Your task to perform on an android device: turn on javascript in the chrome app Image 0: 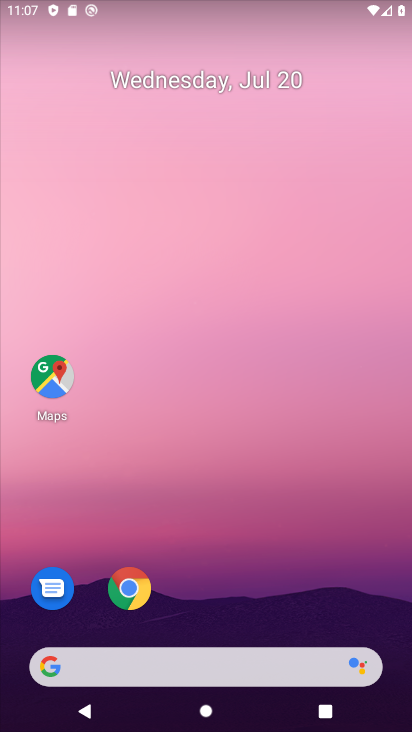
Step 0: press home button
Your task to perform on an android device: turn on javascript in the chrome app Image 1: 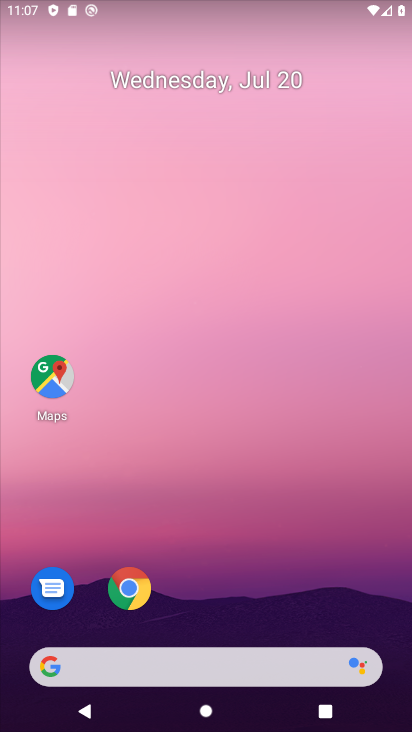
Step 1: click (125, 590)
Your task to perform on an android device: turn on javascript in the chrome app Image 2: 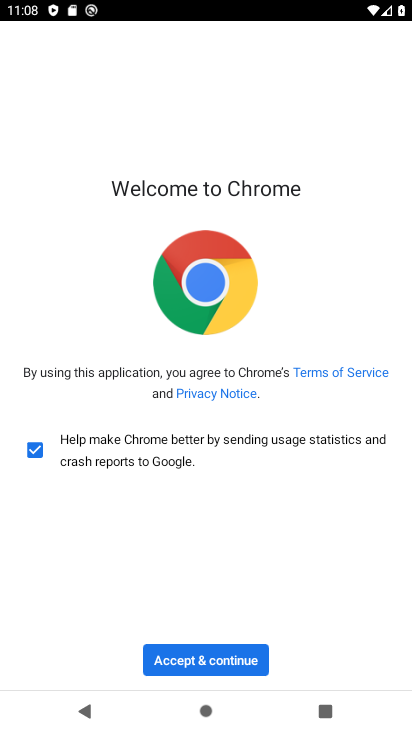
Step 2: click (195, 663)
Your task to perform on an android device: turn on javascript in the chrome app Image 3: 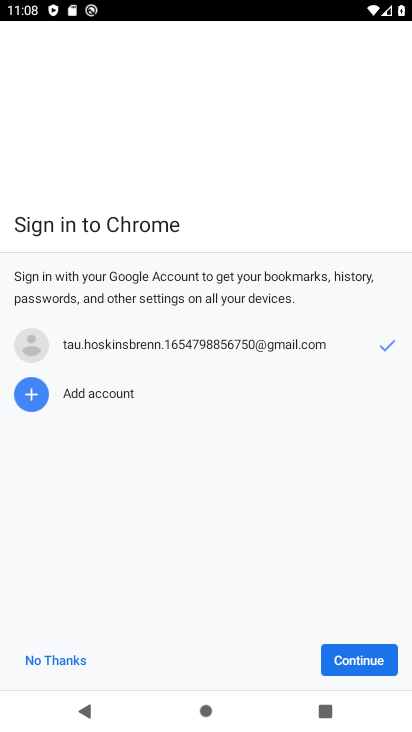
Step 3: click (390, 672)
Your task to perform on an android device: turn on javascript in the chrome app Image 4: 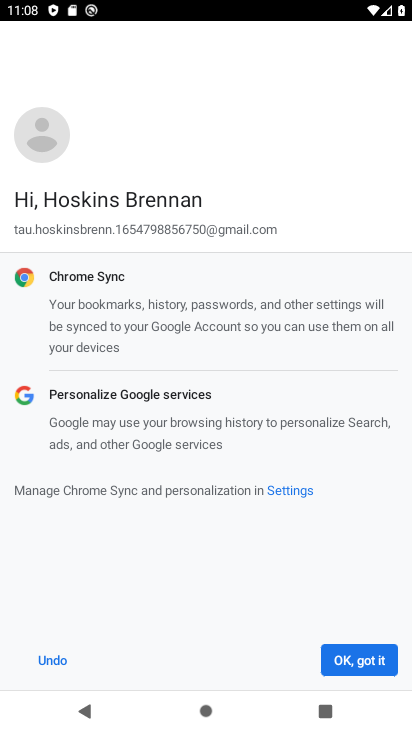
Step 4: click (390, 672)
Your task to perform on an android device: turn on javascript in the chrome app Image 5: 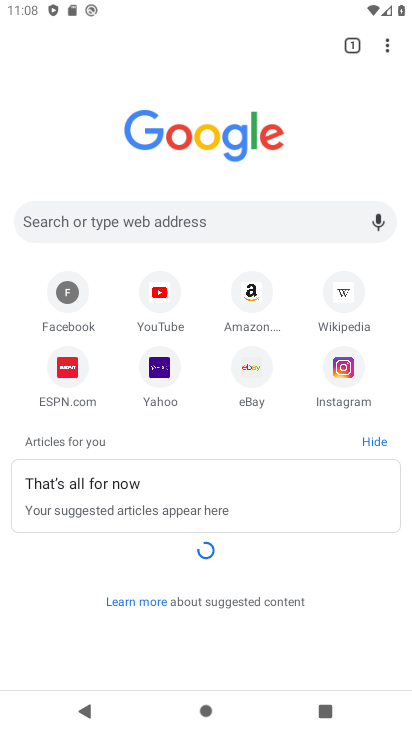
Step 5: click (385, 44)
Your task to perform on an android device: turn on javascript in the chrome app Image 6: 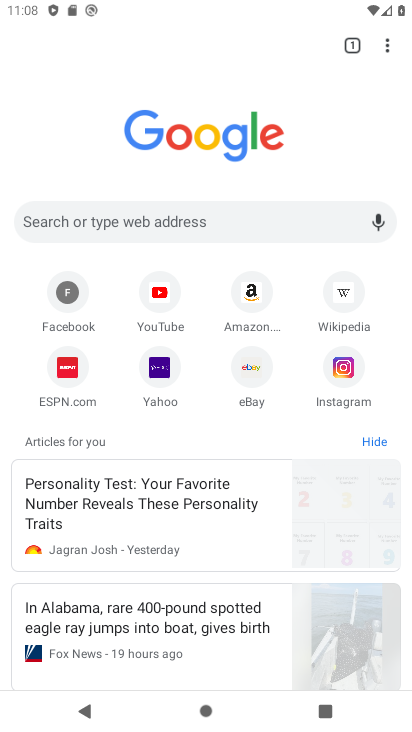
Step 6: drag from (385, 44) to (252, 371)
Your task to perform on an android device: turn on javascript in the chrome app Image 7: 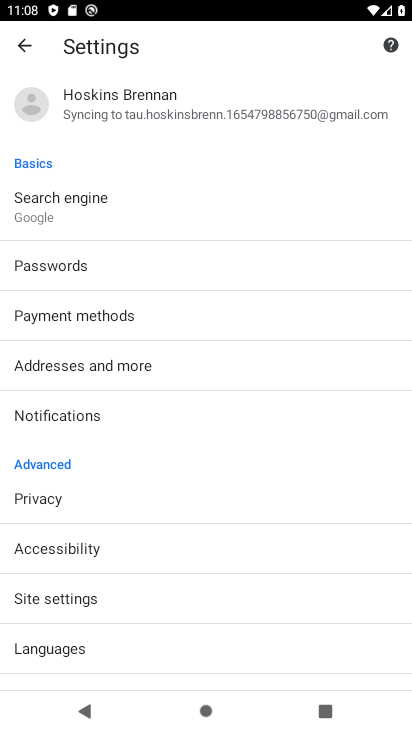
Step 7: click (83, 602)
Your task to perform on an android device: turn on javascript in the chrome app Image 8: 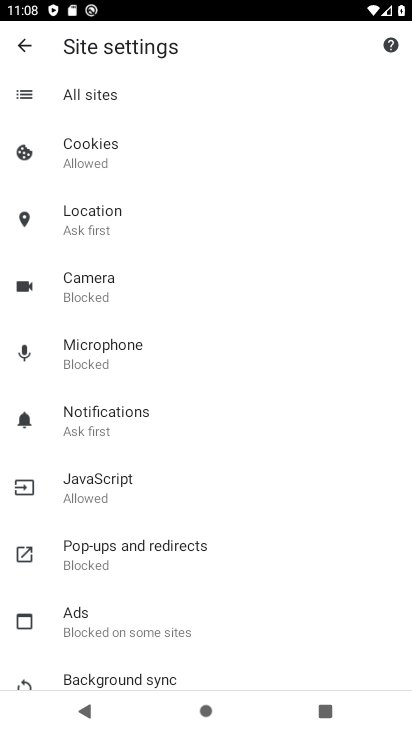
Step 8: click (122, 481)
Your task to perform on an android device: turn on javascript in the chrome app Image 9: 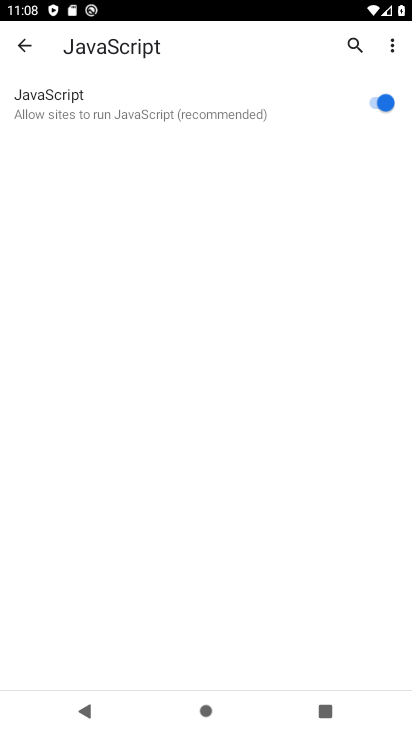
Step 9: task complete